Your task to perform on an android device: Go to settings Image 0: 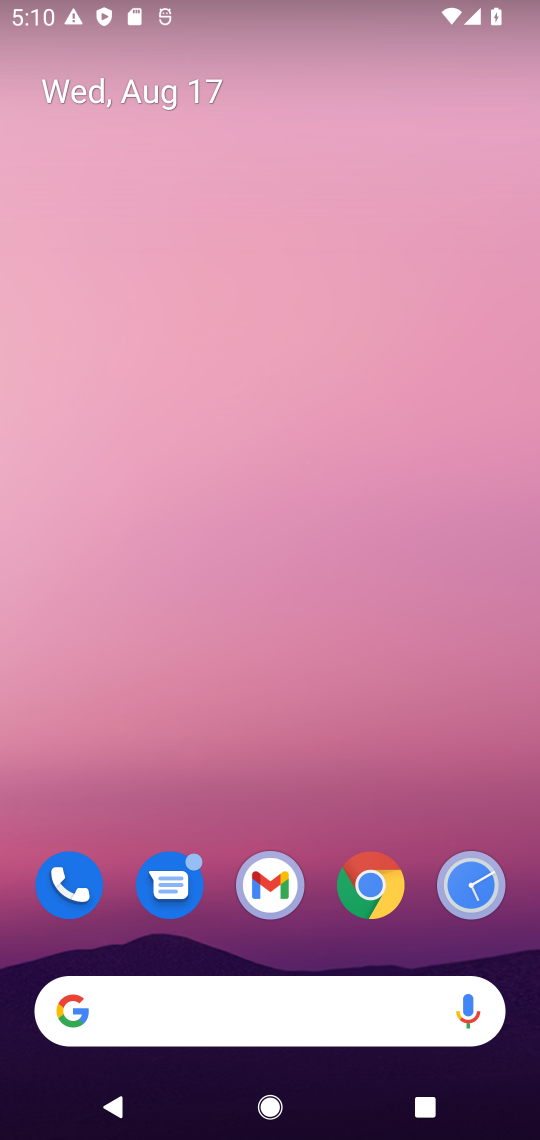
Step 0: drag from (441, 785) to (236, 6)
Your task to perform on an android device: Go to settings Image 1: 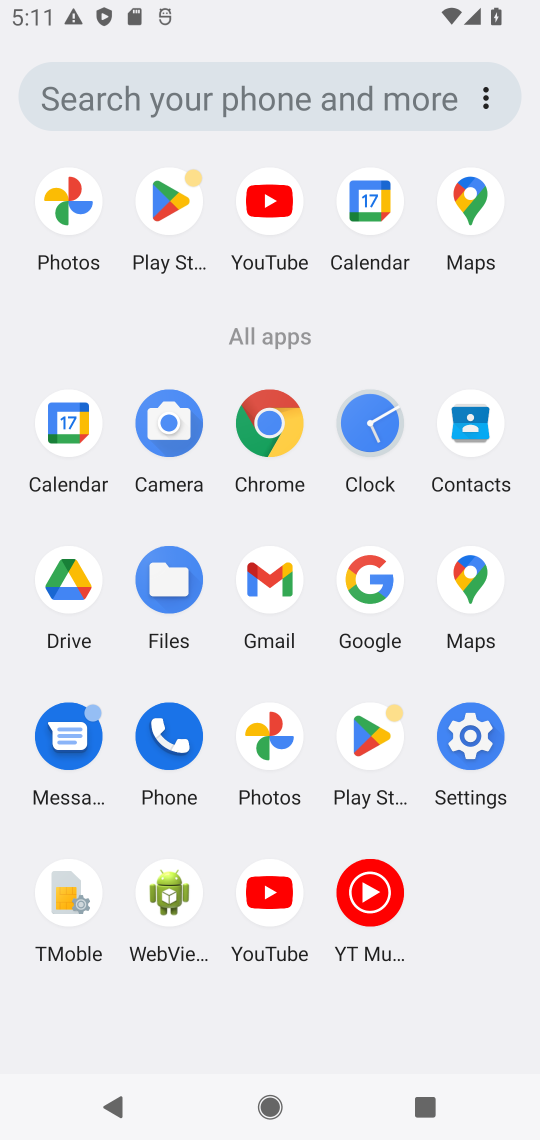
Step 1: click (493, 712)
Your task to perform on an android device: Go to settings Image 2: 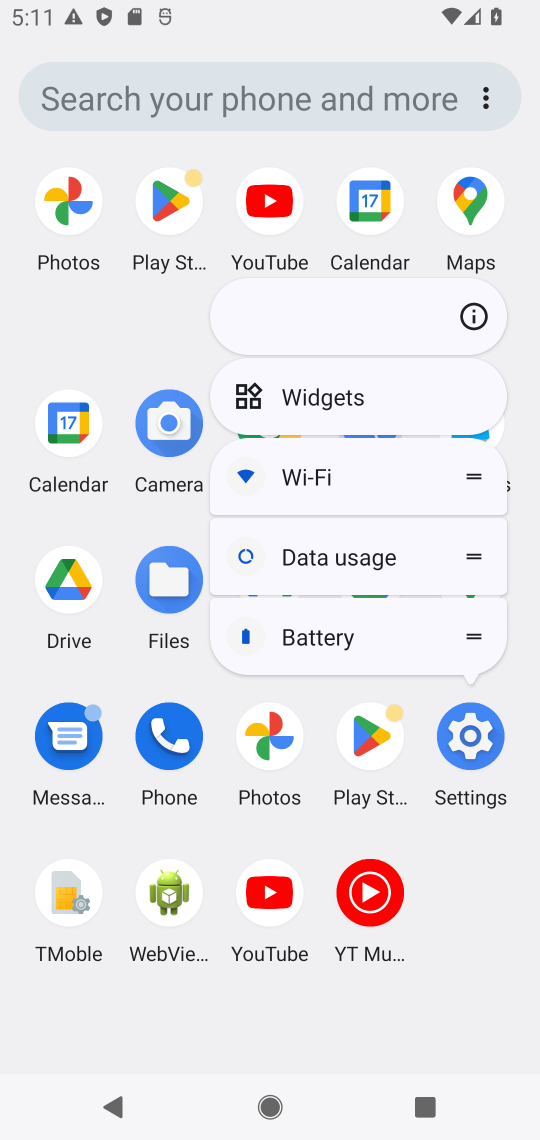
Step 2: click (491, 733)
Your task to perform on an android device: Go to settings Image 3: 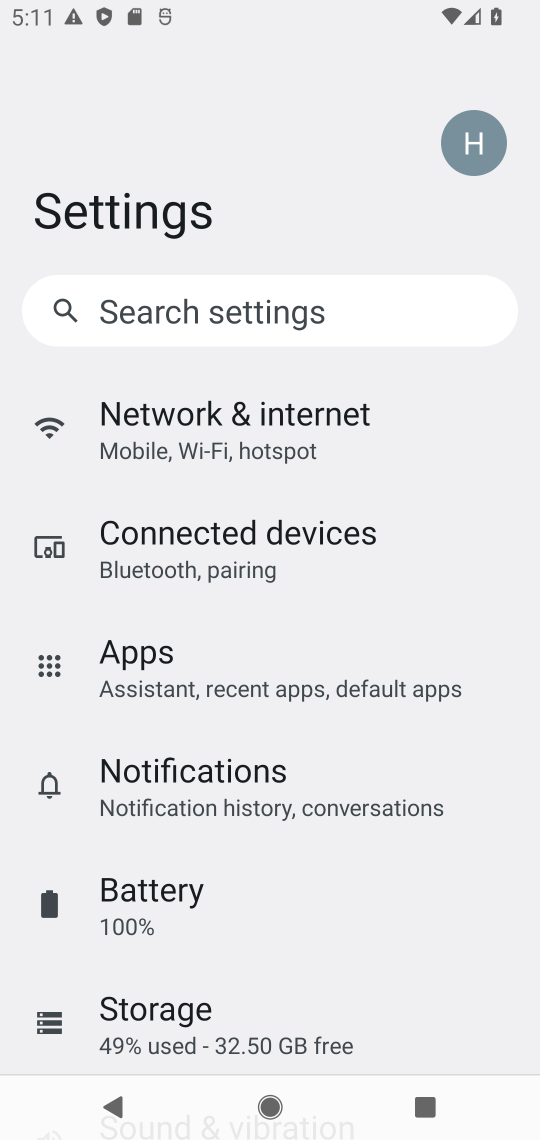
Step 3: task complete